Your task to perform on an android device: turn off translation in the chrome app Image 0: 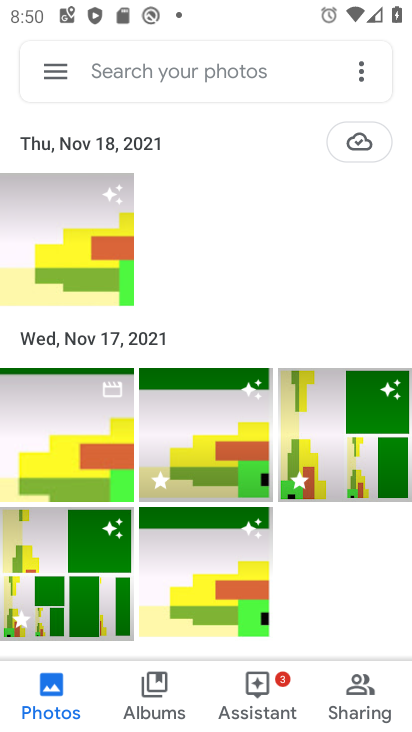
Step 0: press home button
Your task to perform on an android device: turn off translation in the chrome app Image 1: 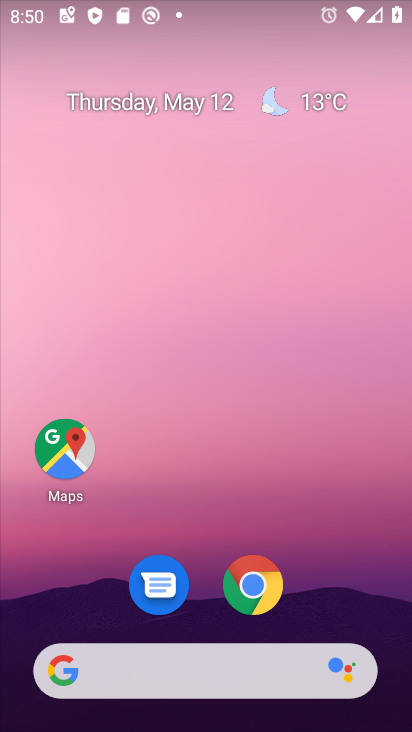
Step 1: click (258, 577)
Your task to perform on an android device: turn off translation in the chrome app Image 2: 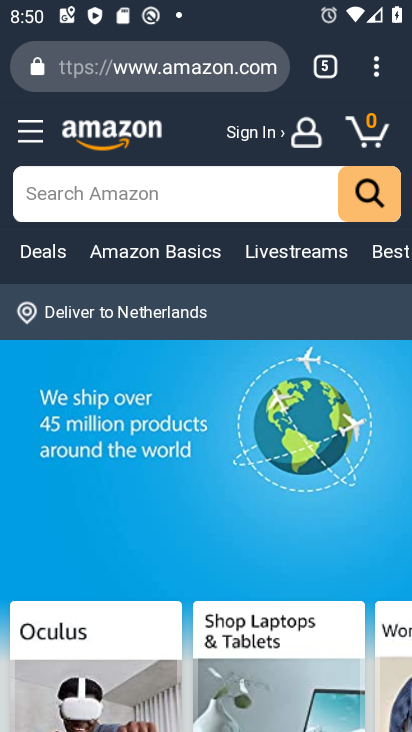
Step 2: click (374, 70)
Your task to perform on an android device: turn off translation in the chrome app Image 3: 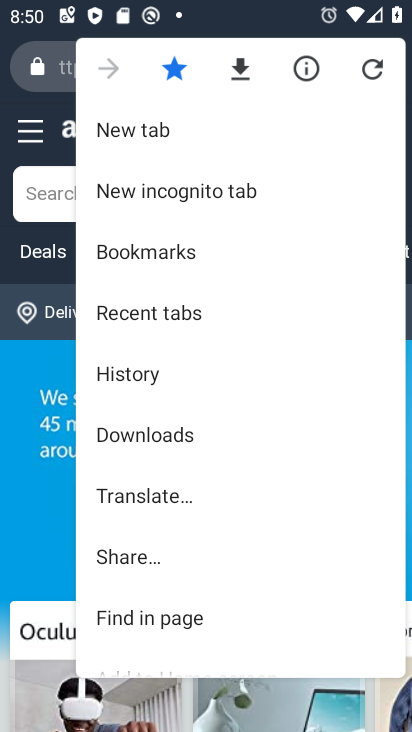
Step 3: drag from (276, 530) to (286, 163)
Your task to perform on an android device: turn off translation in the chrome app Image 4: 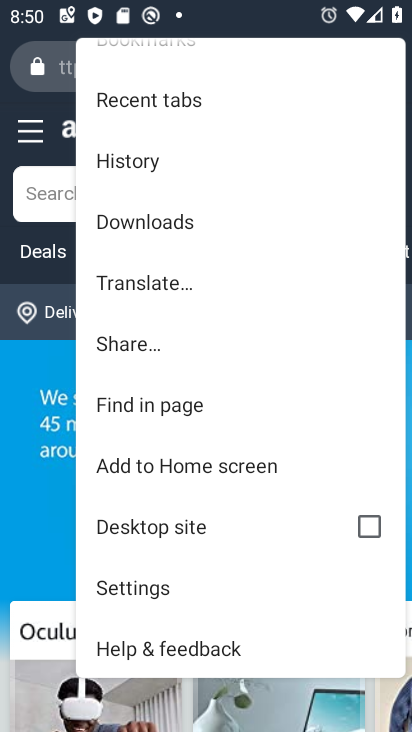
Step 4: click (191, 585)
Your task to perform on an android device: turn off translation in the chrome app Image 5: 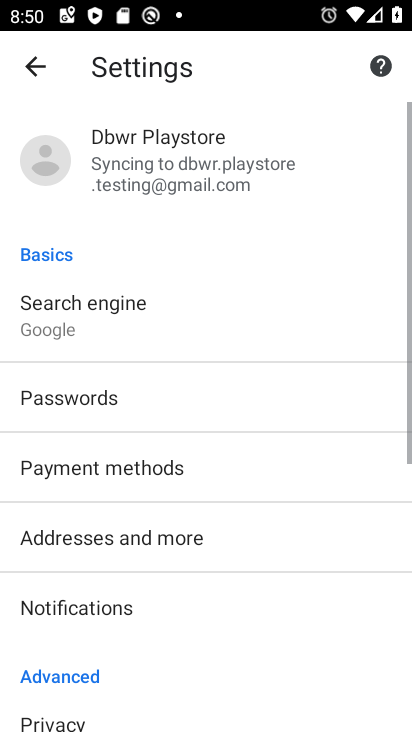
Step 5: drag from (289, 608) to (271, 63)
Your task to perform on an android device: turn off translation in the chrome app Image 6: 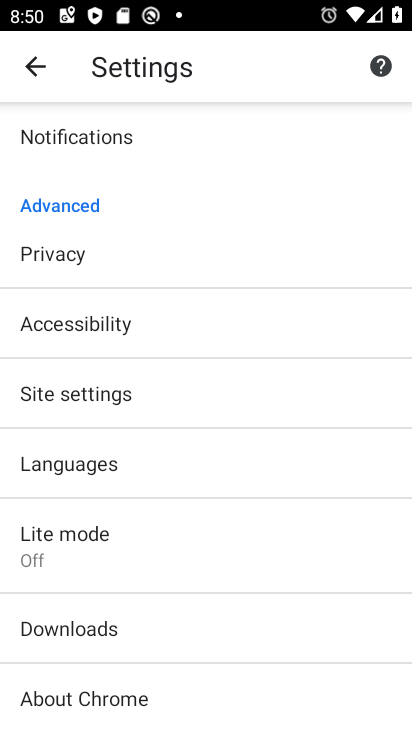
Step 6: click (254, 459)
Your task to perform on an android device: turn off translation in the chrome app Image 7: 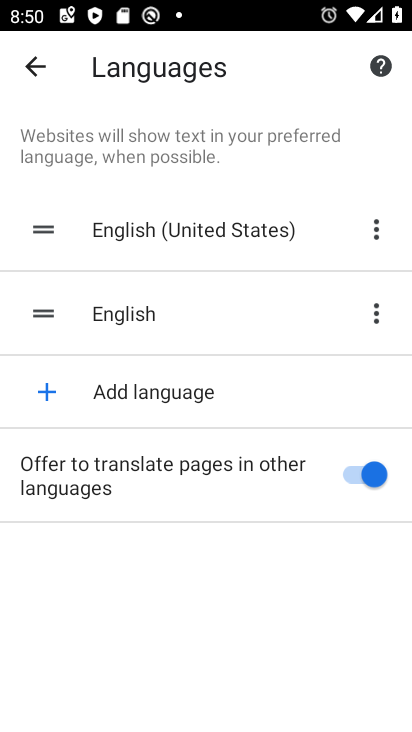
Step 7: click (359, 472)
Your task to perform on an android device: turn off translation in the chrome app Image 8: 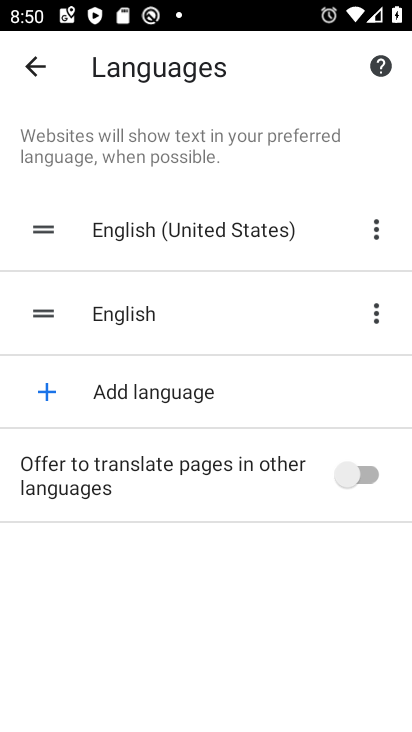
Step 8: task complete